Your task to perform on an android device: turn on sleep mode Image 0: 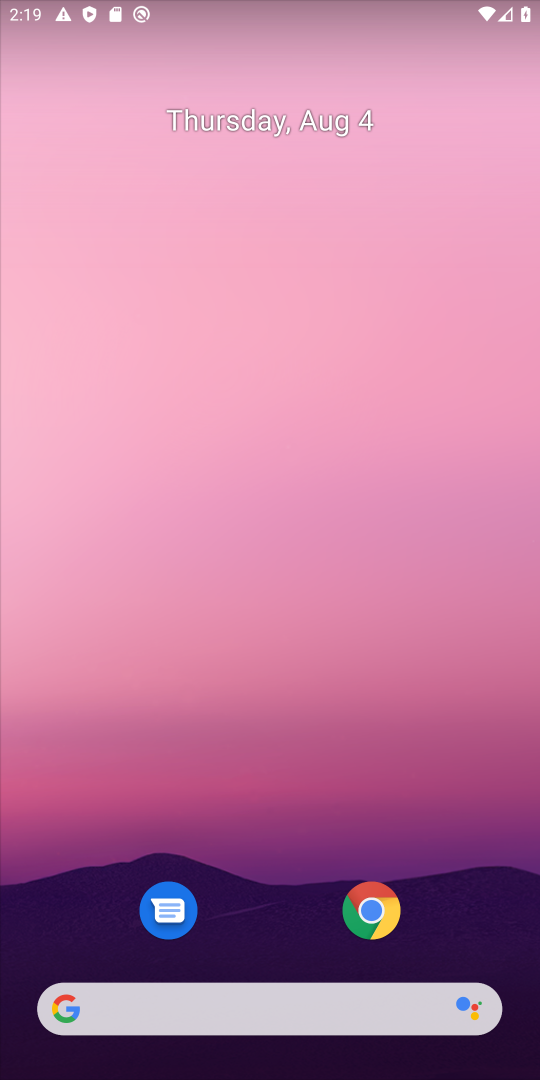
Step 0: drag from (296, 900) to (293, 335)
Your task to perform on an android device: turn on sleep mode Image 1: 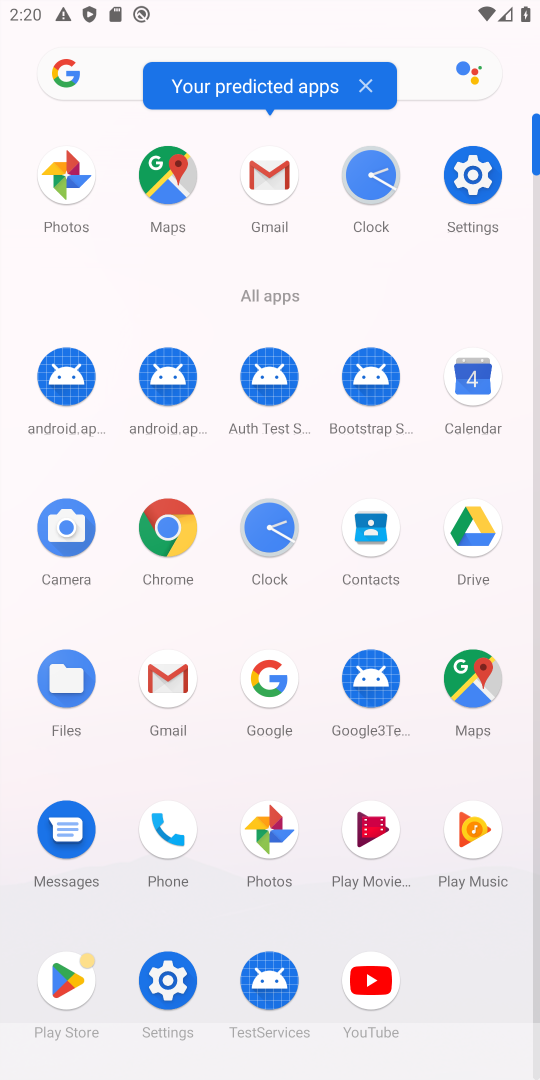
Step 1: click (456, 183)
Your task to perform on an android device: turn on sleep mode Image 2: 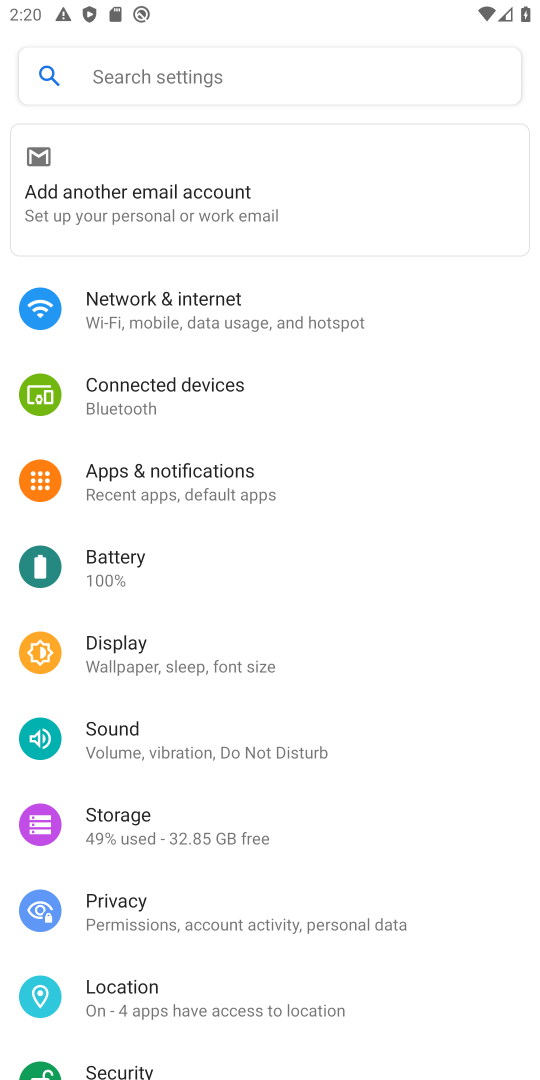
Step 2: click (172, 660)
Your task to perform on an android device: turn on sleep mode Image 3: 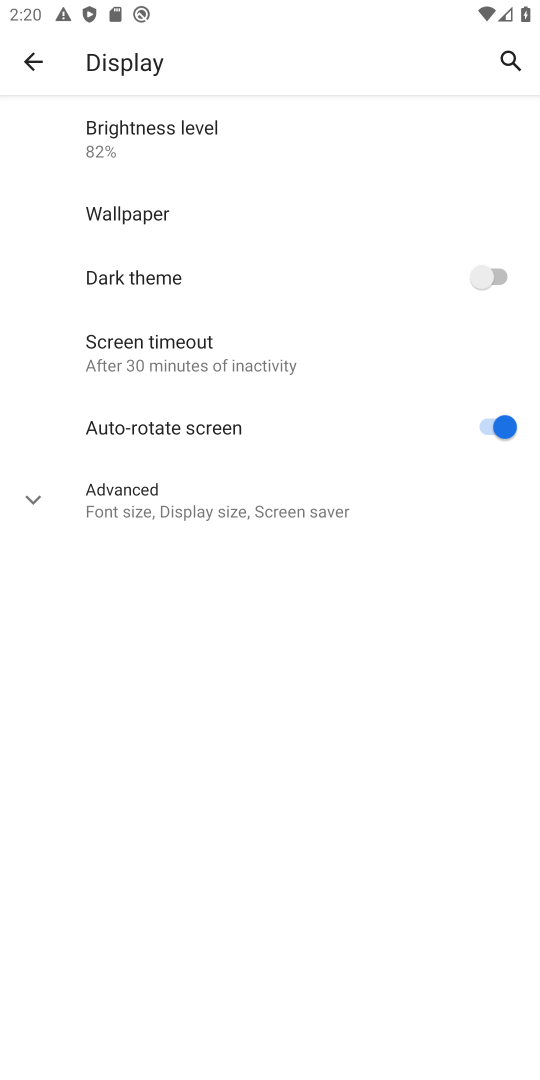
Step 3: click (194, 506)
Your task to perform on an android device: turn on sleep mode Image 4: 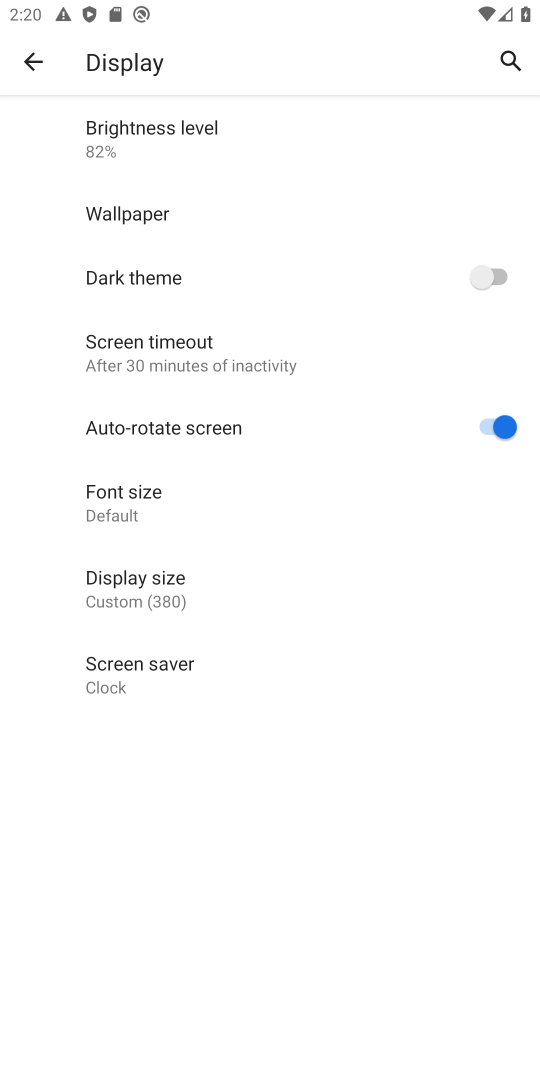
Step 4: task complete